Your task to perform on an android device: What's the weather going to be tomorrow? Image 0: 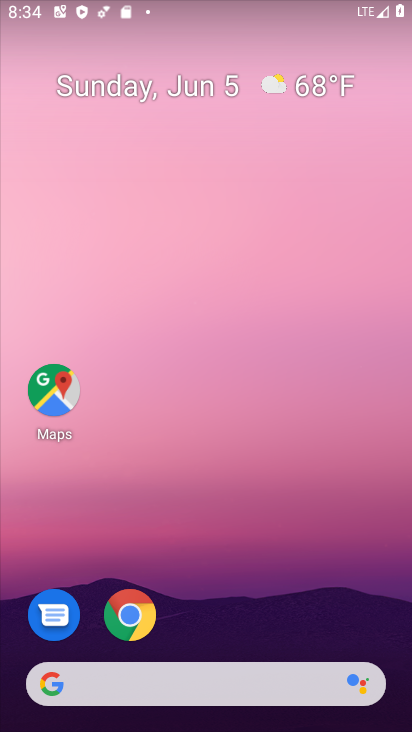
Step 0: click (319, 77)
Your task to perform on an android device: What's the weather going to be tomorrow? Image 1: 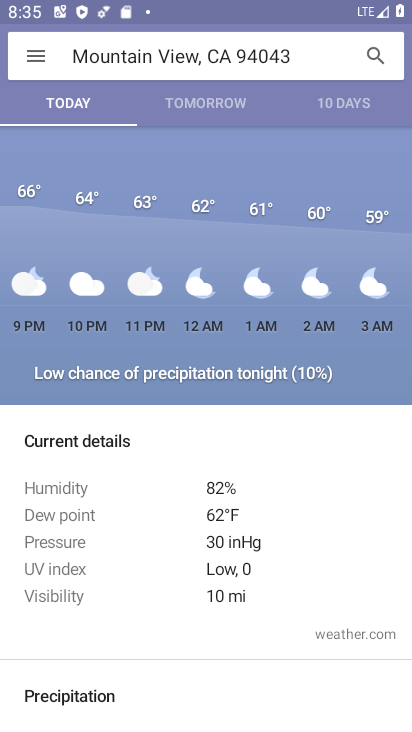
Step 1: click (177, 98)
Your task to perform on an android device: What's the weather going to be tomorrow? Image 2: 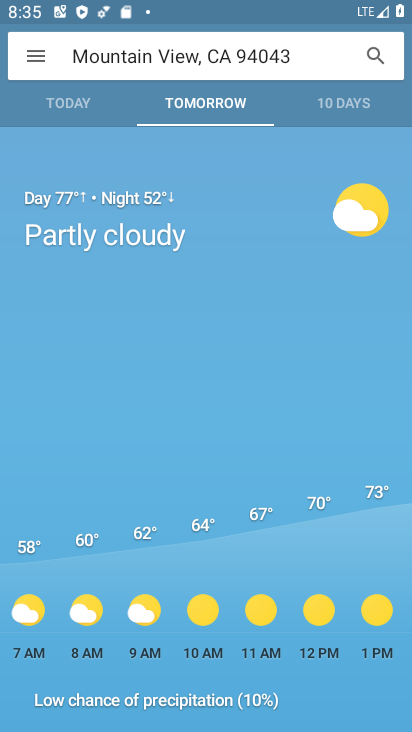
Step 2: task complete